Your task to perform on an android device: Go to display settings Image 0: 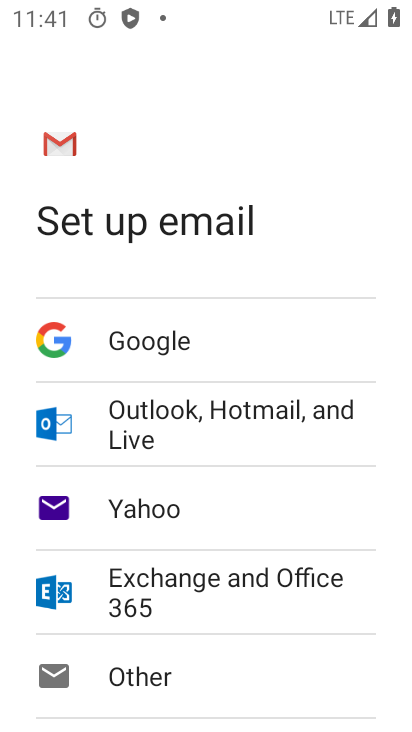
Step 0: press back button
Your task to perform on an android device: Go to display settings Image 1: 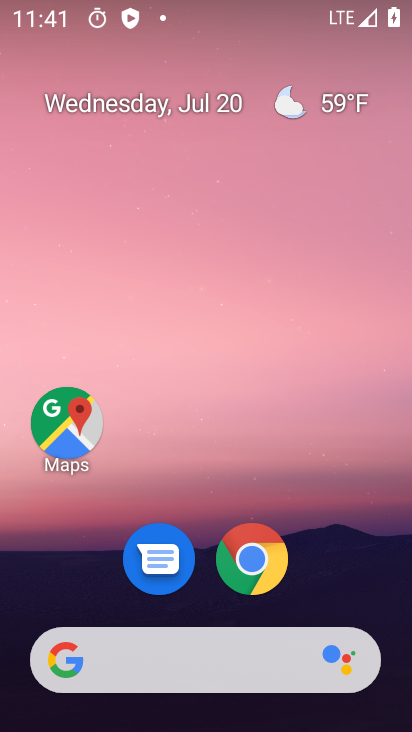
Step 1: drag from (100, 535) to (197, 3)
Your task to perform on an android device: Go to display settings Image 2: 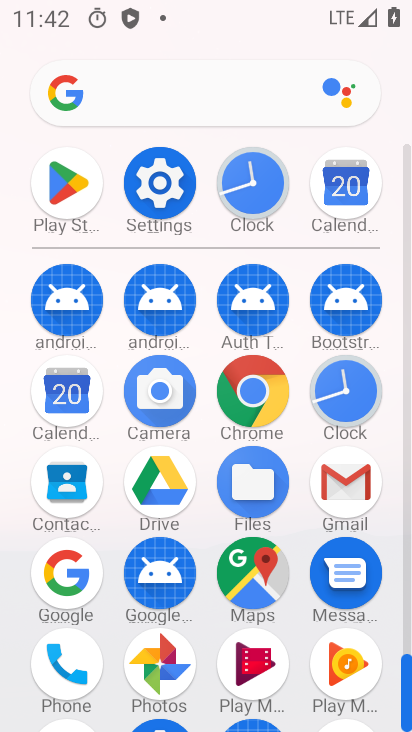
Step 2: click (171, 191)
Your task to perform on an android device: Go to display settings Image 3: 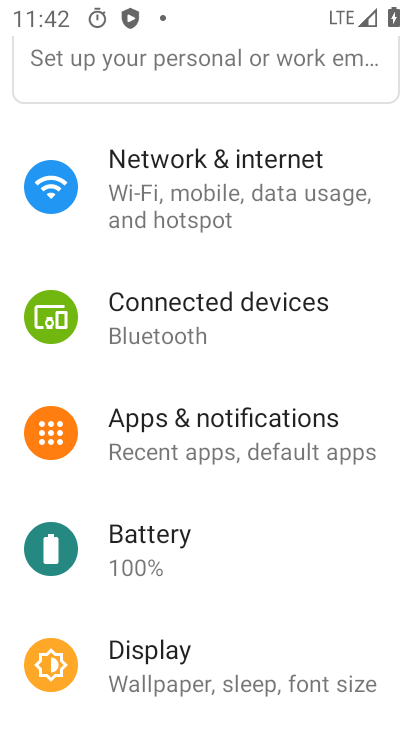
Step 3: click (167, 670)
Your task to perform on an android device: Go to display settings Image 4: 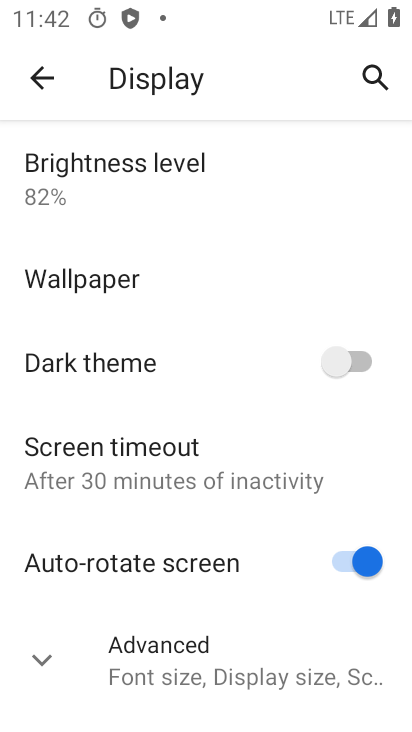
Step 4: task complete